Your task to perform on an android device: open app "Nova Launcher" (install if not already installed) and go to login screen Image 0: 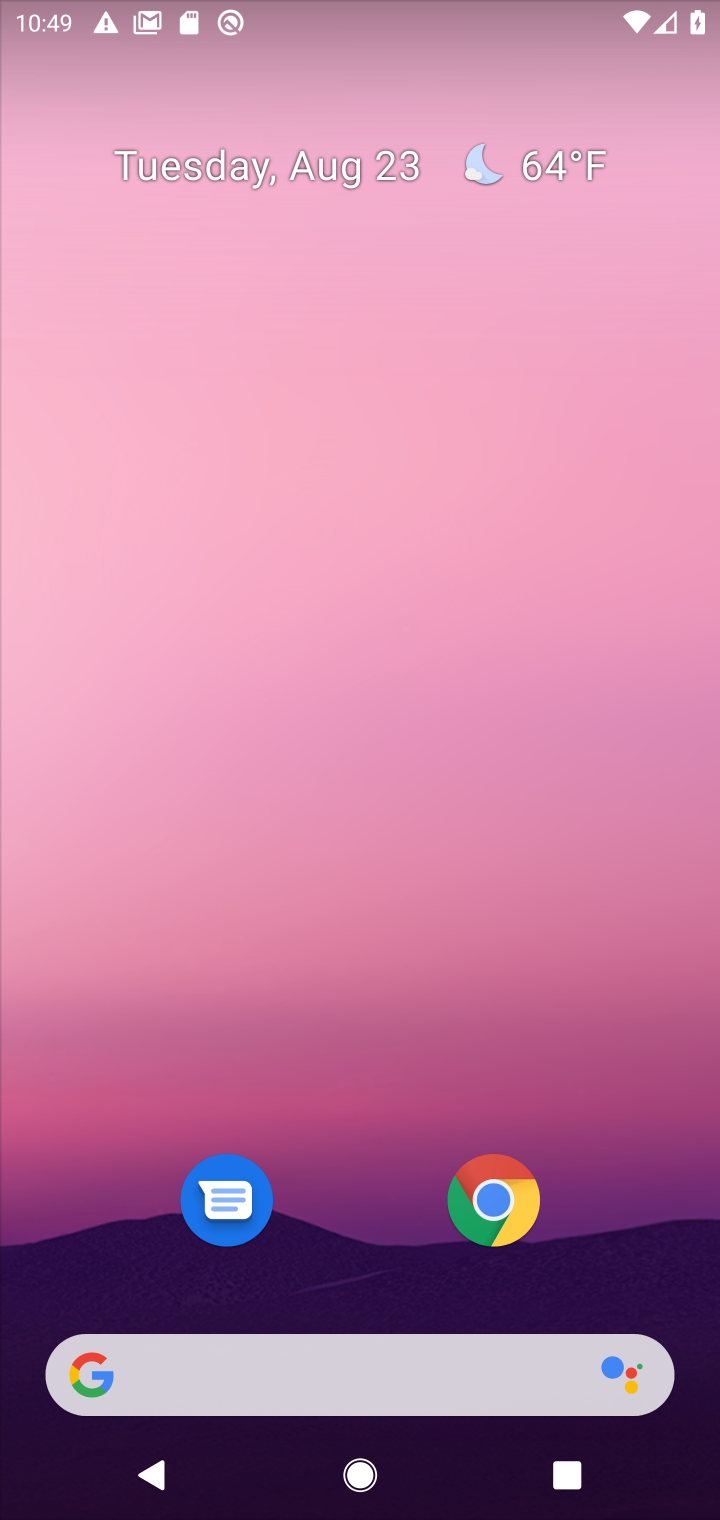
Step 0: drag from (380, 1286) to (154, 269)
Your task to perform on an android device: open app "Nova Launcher" (install if not already installed) and go to login screen Image 1: 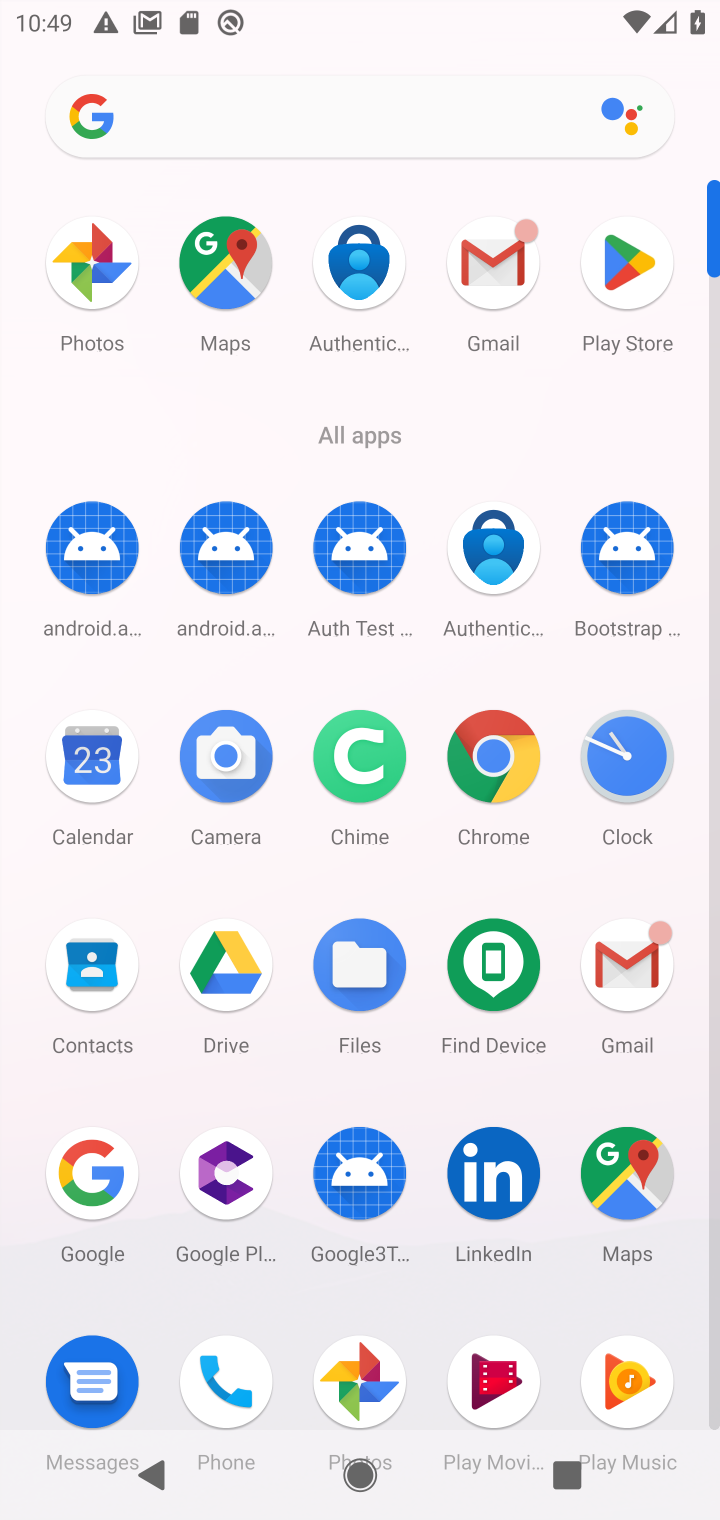
Step 1: click (615, 278)
Your task to perform on an android device: open app "Nova Launcher" (install if not already installed) and go to login screen Image 2: 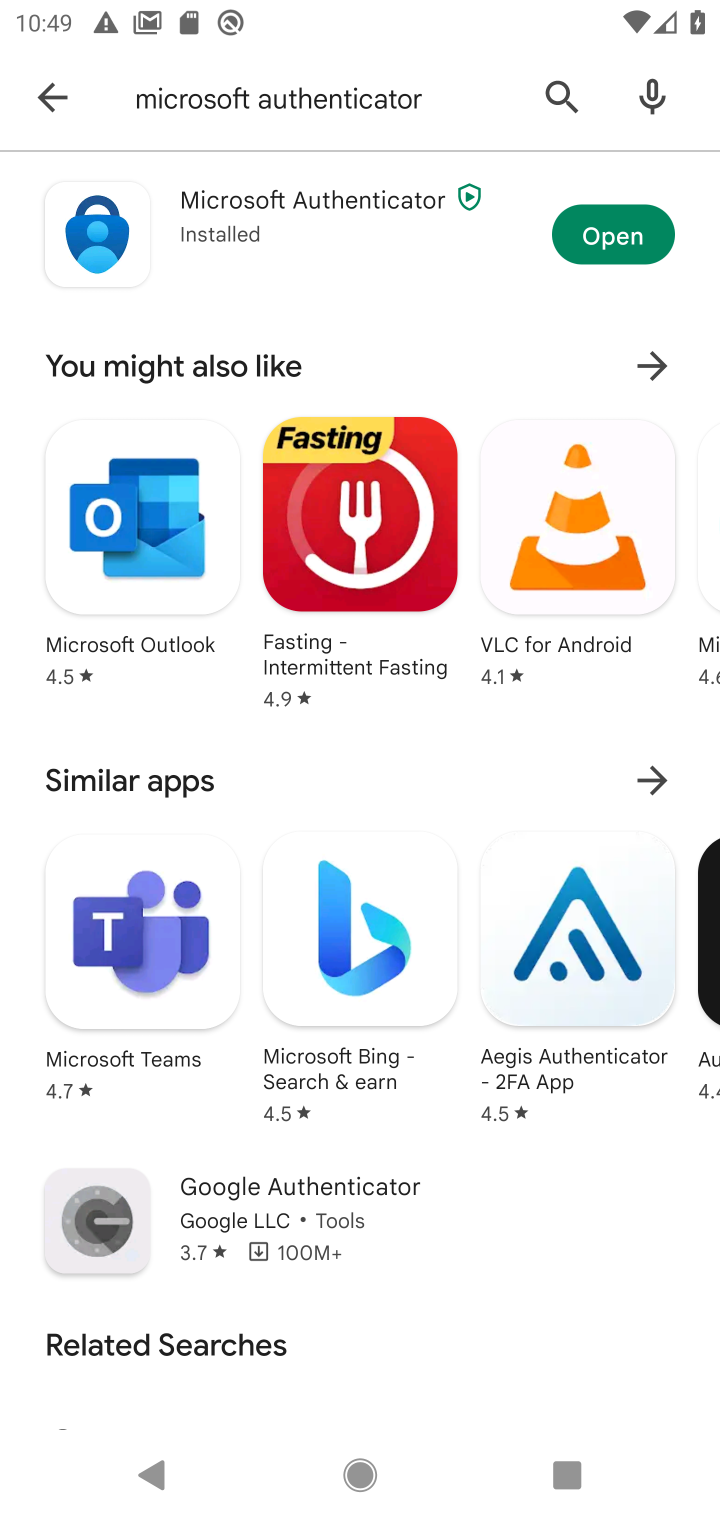
Step 2: click (550, 97)
Your task to perform on an android device: open app "Nova Launcher" (install if not already installed) and go to login screen Image 3: 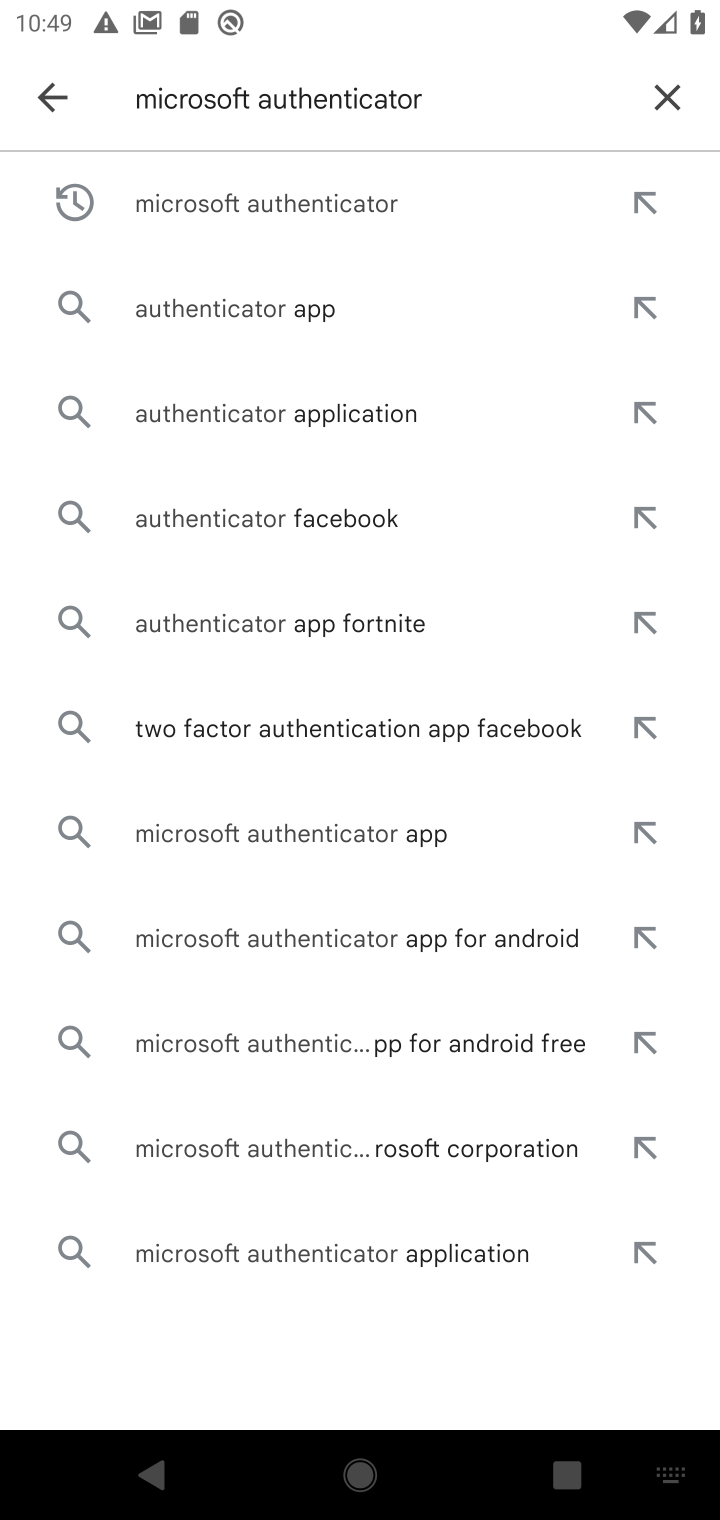
Step 3: click (681, 103)
Your task to perform on an android device: open app "Nova Launcher" (install if not already installed) and go to login screen Image 4: 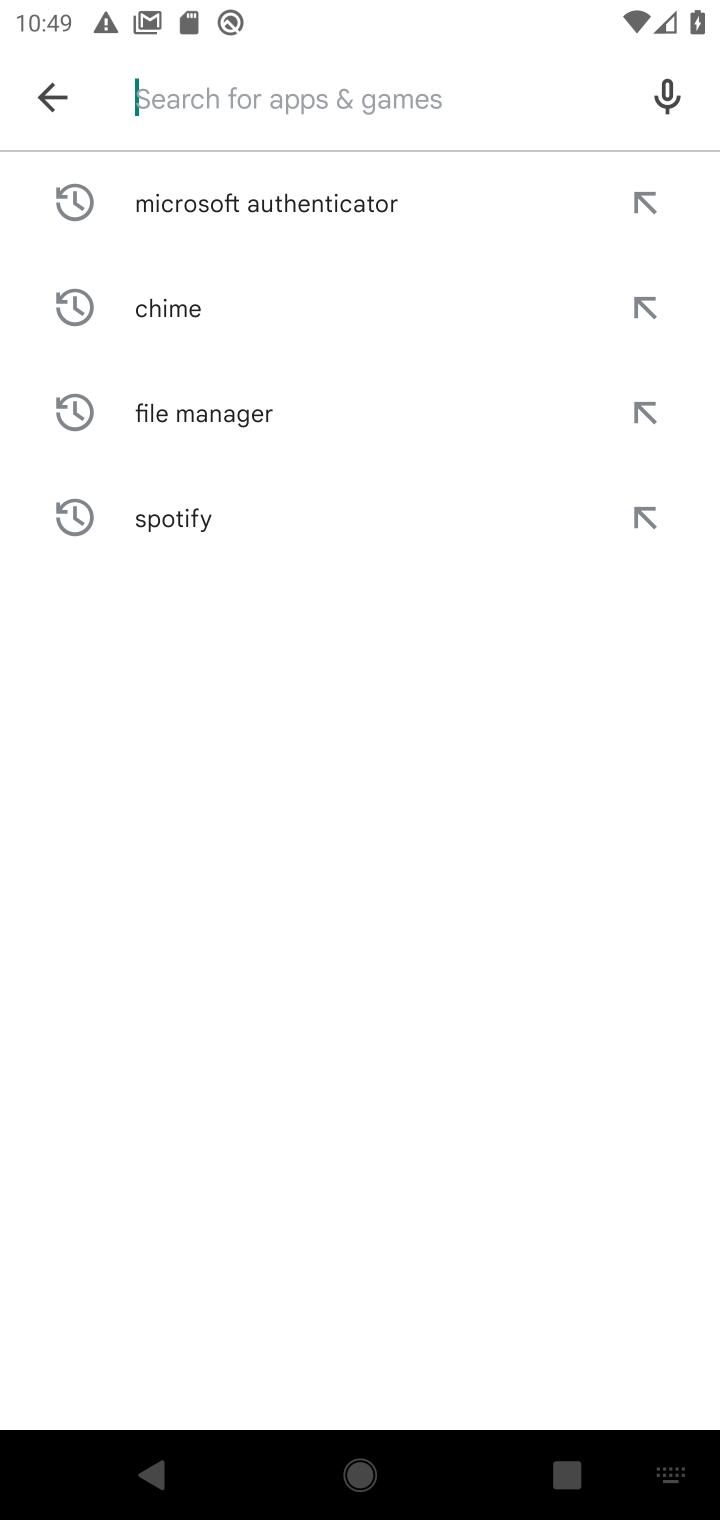
Step 4: click (55, 1277)
Your task to perform on an android device: open app "Nova Launcher" (install if not already installed) and go to login screen Image 5: 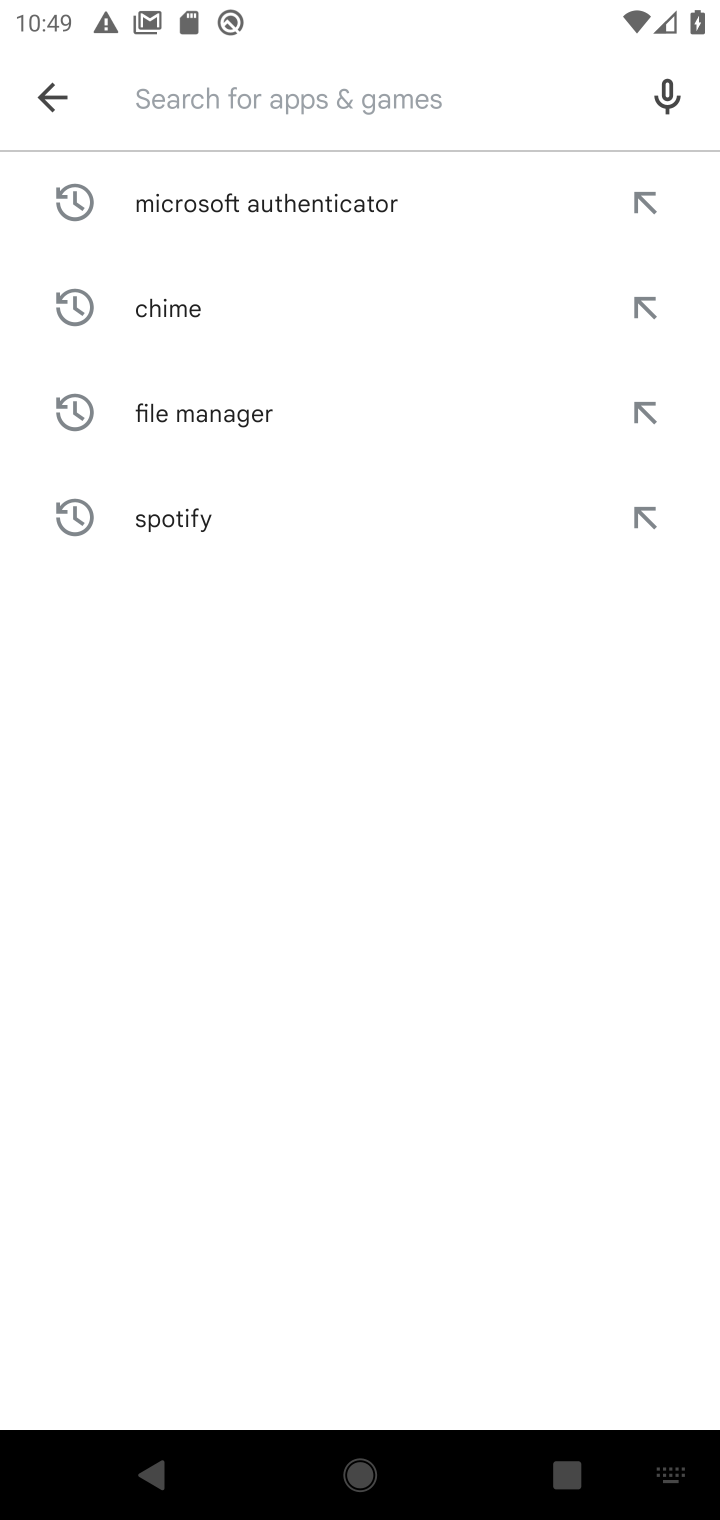
Step 5: type "Nova Launcher"
Your task to perform on an android device: open app "Nova Launcher" (install if not already installed) and go to login screen Image 6: 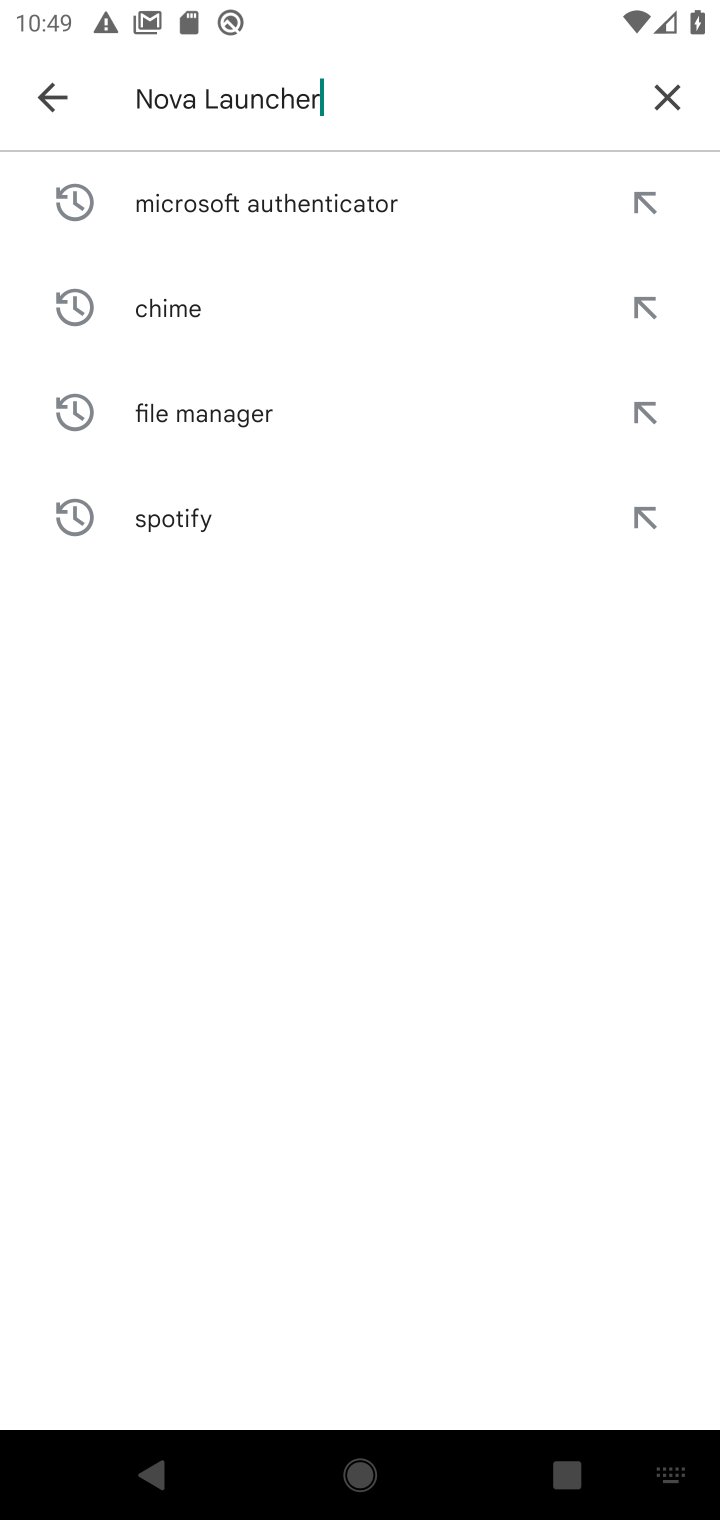
Step 6: click (687, 526)
Your task to perform on an android device: open app "Nova Launcher" (install if not already installed) and go to login screen Image 7: 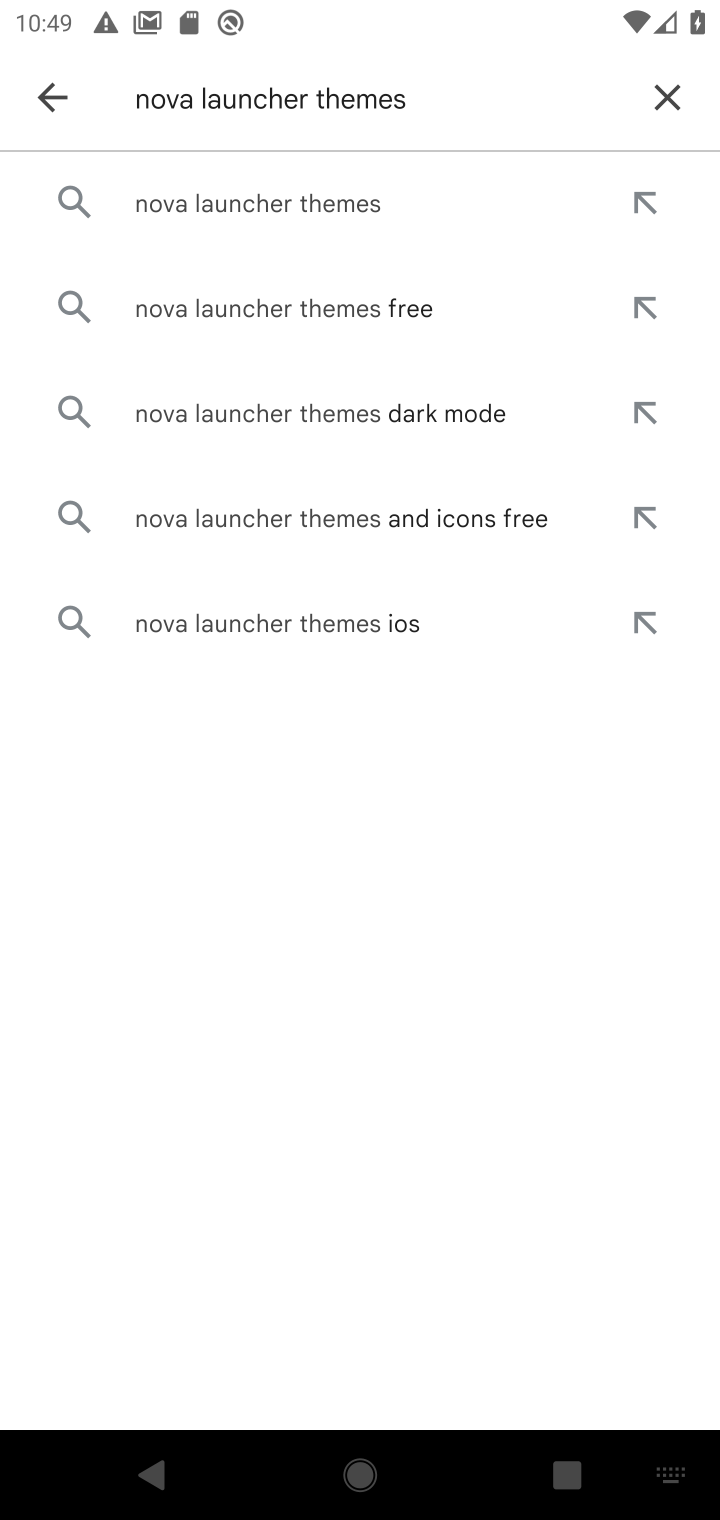
Step 7: click (275, 189)
Your task to perform on an android device: open app "Nova Launcher" (install if not already installed) and go to login screen Image 8: 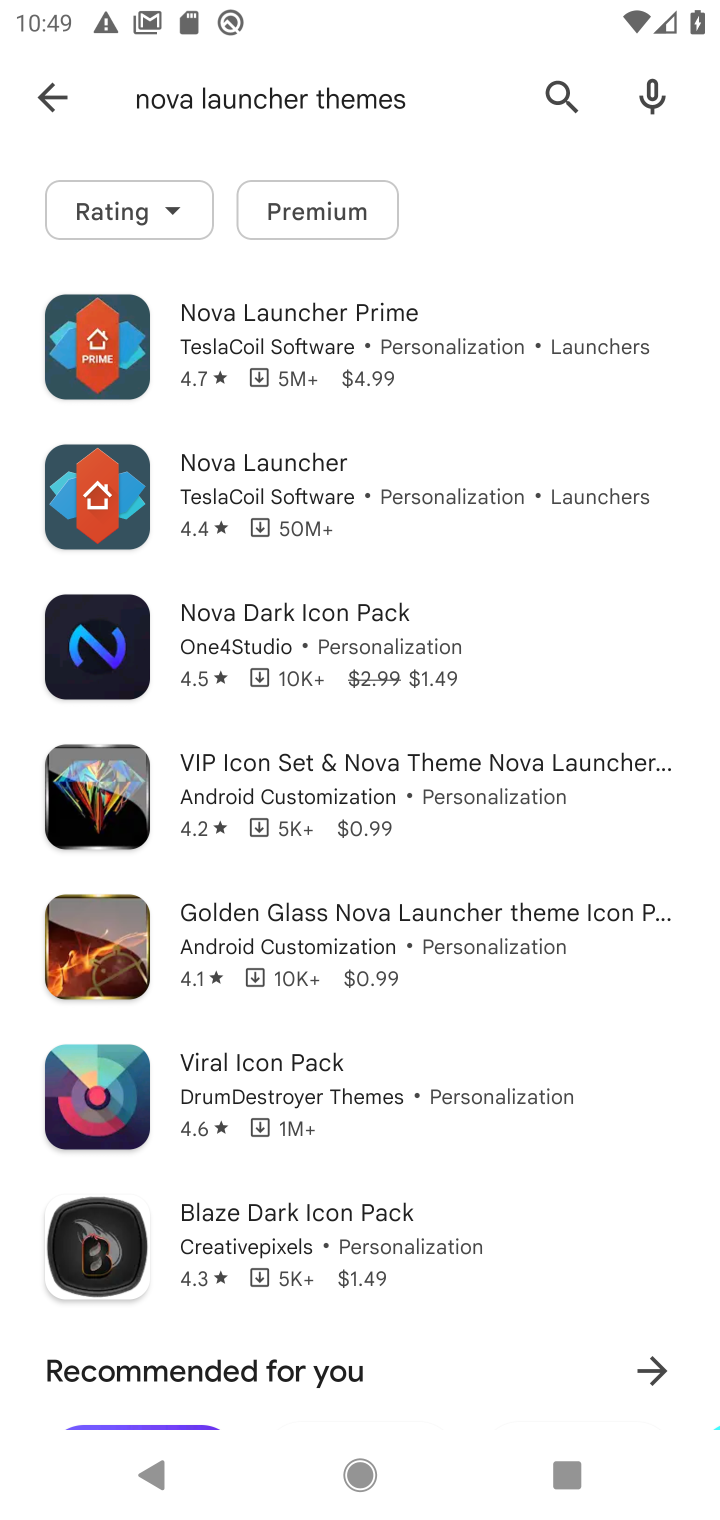
Step 8: click (292, 514)
Your task to perform on an android device: open app "Nova Launcher" (install if not already installed) and go to login screen Image 9: 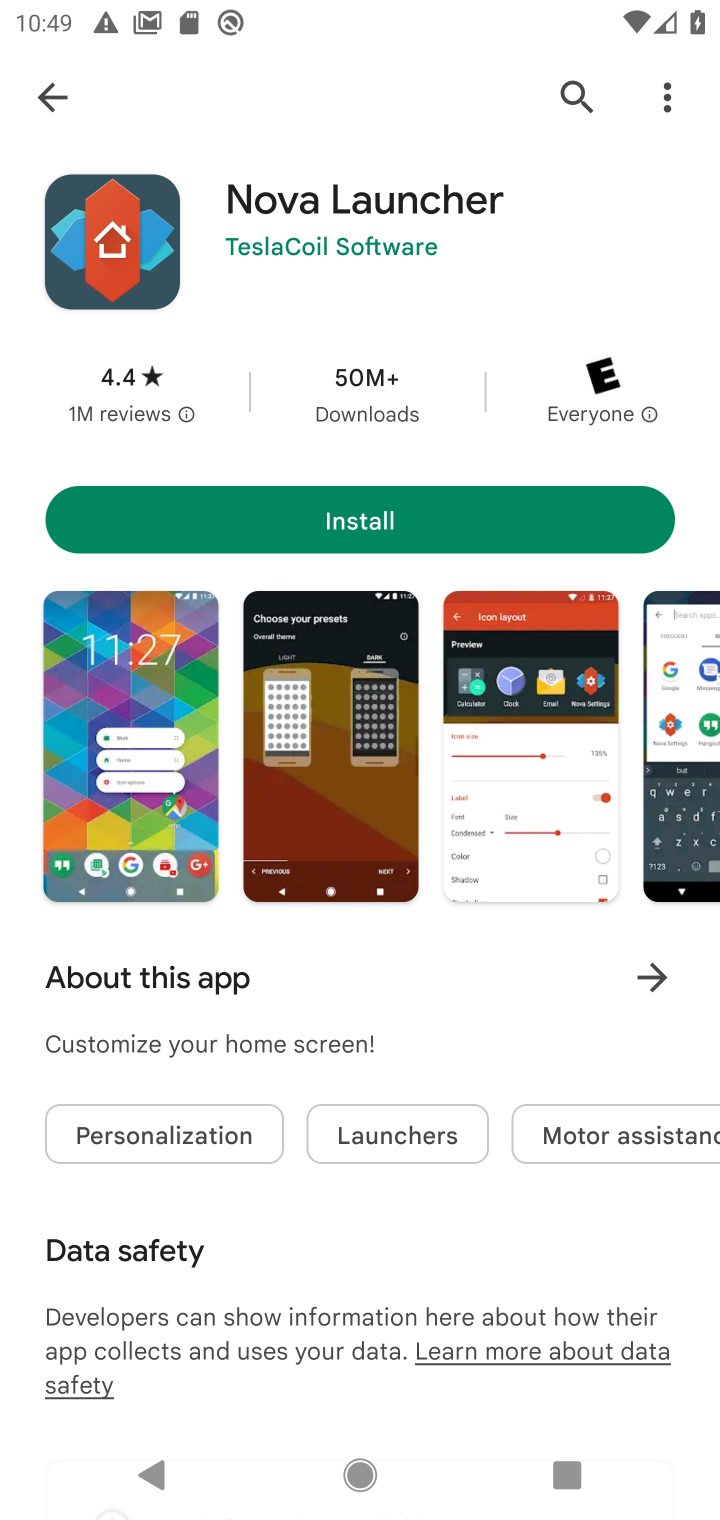
Step 9: click (385, 499)
Your task to perform on an android device: open app "Nova Launcher" (install if not already installed) and go to login screen Image 10: 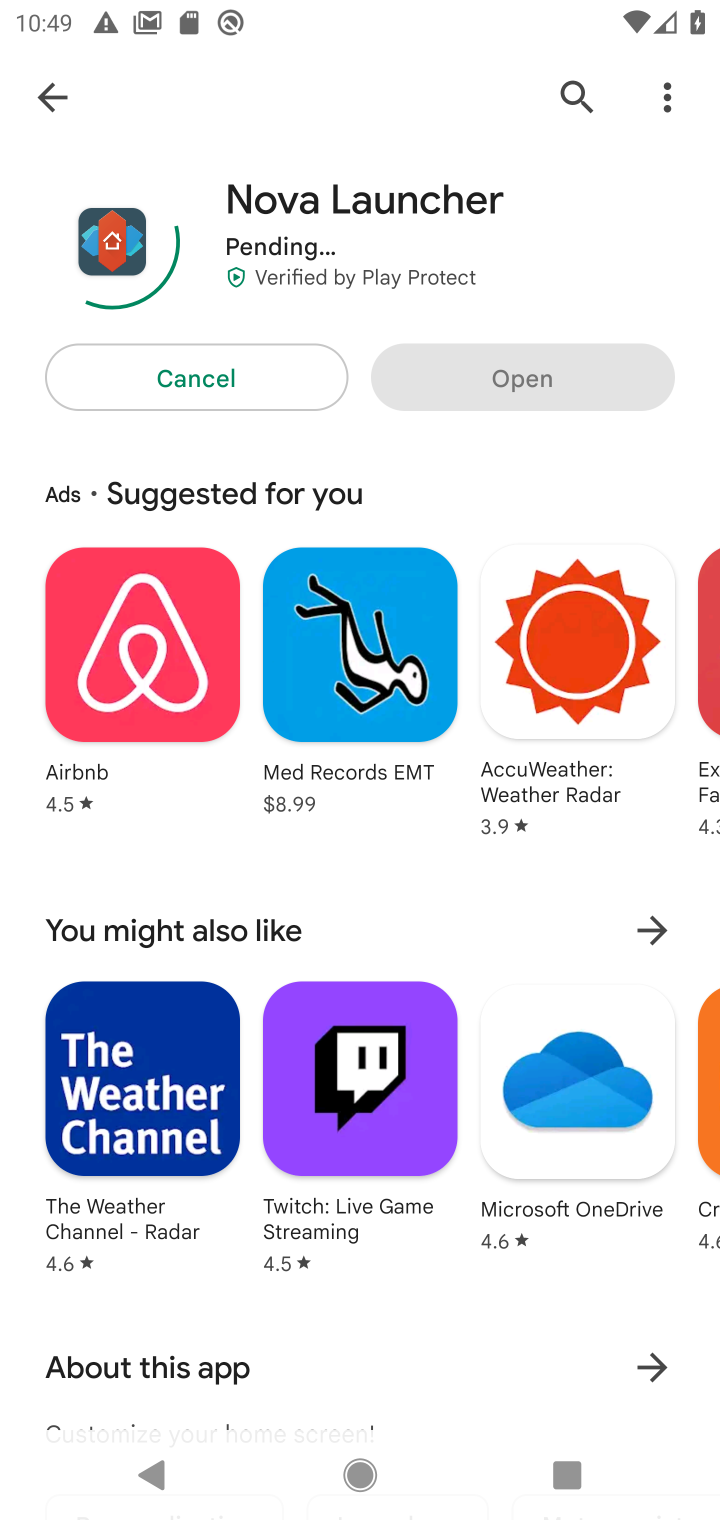
Step 10: drag from (579, 11) to (481, 1279)
Your task to perform on an android device: open app "Nova Launcher" (install if not already installed) and go to login screen Image 11: 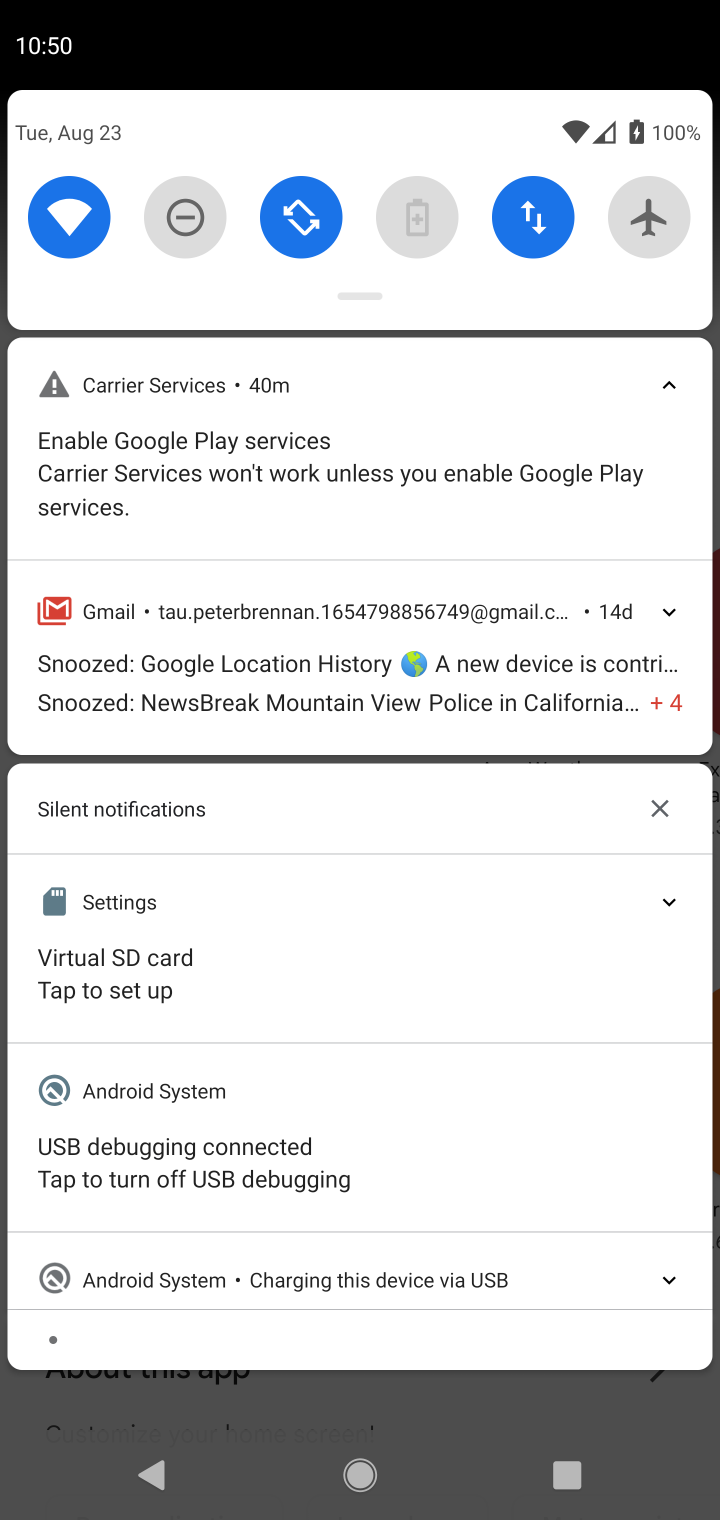
Step 11: drag from (421, 1363) to (325, 166)
Your task to perform on an android device: open app "Nova Launcher" (install if not already installed) and go to login screen Image 12: 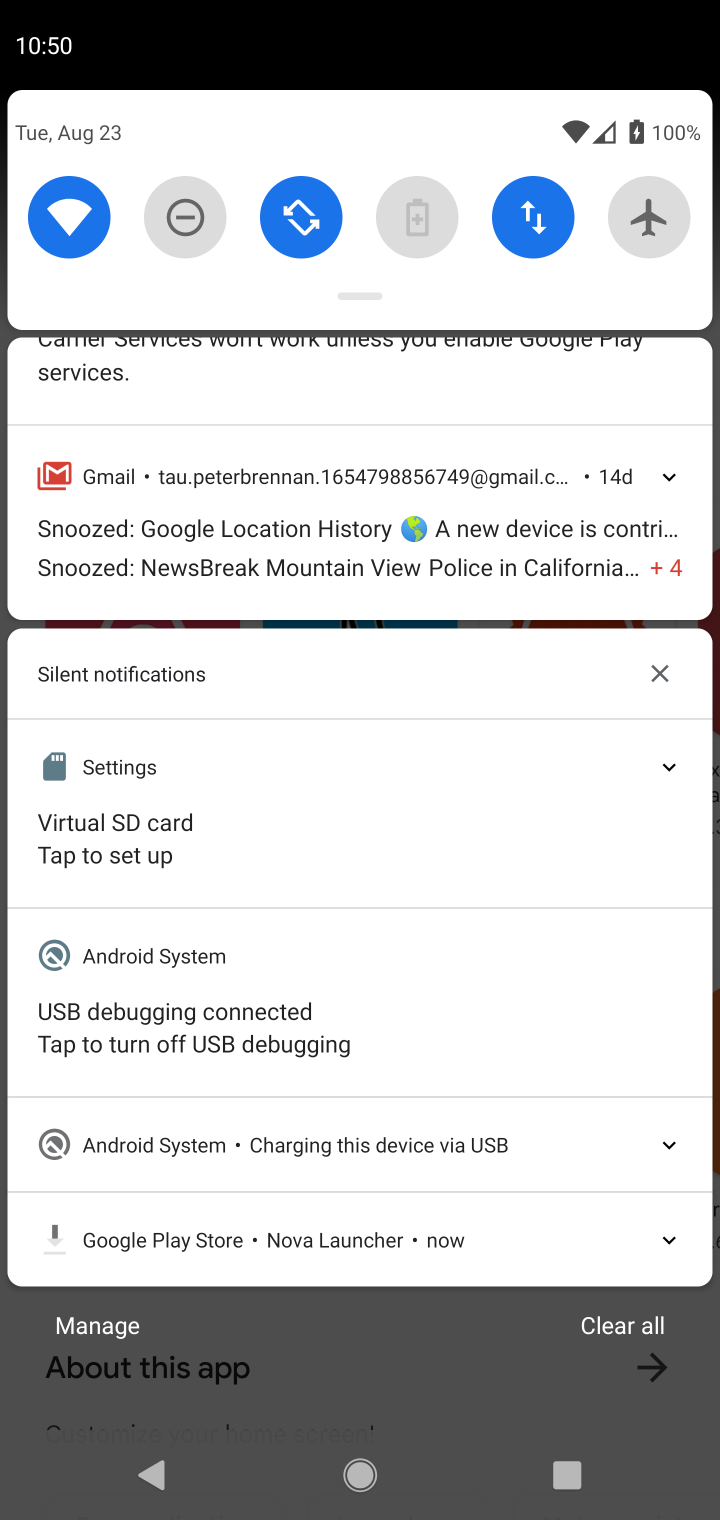
Step 12: click (581, 1324)
Your task to perform on an android device: open app "Nova Launcher" (install if not already installed) and go to login screen Image 13: 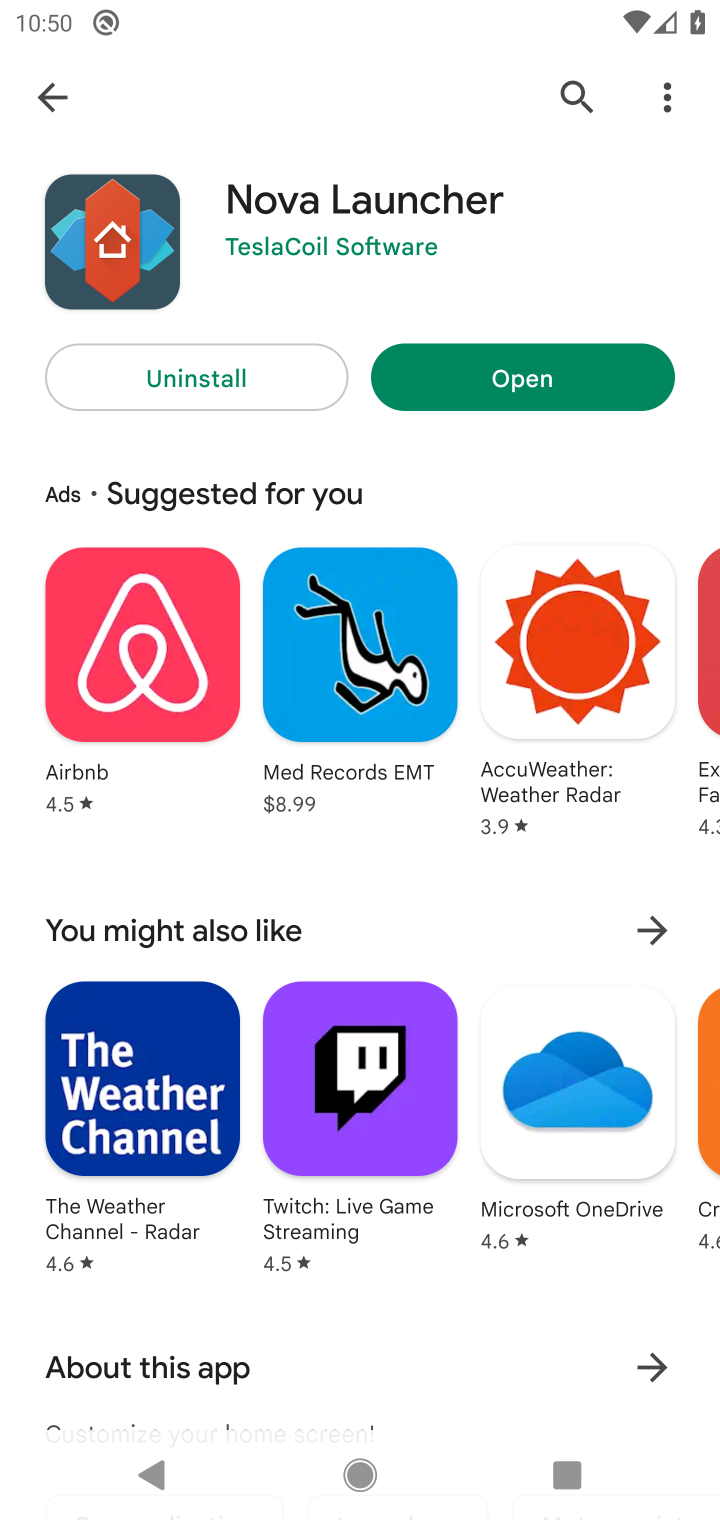
Step 13: click (451, 395)
Your task to perform on an android device: open app "Nova Launcher" (install if not already installed) and go to login screen Image 14: 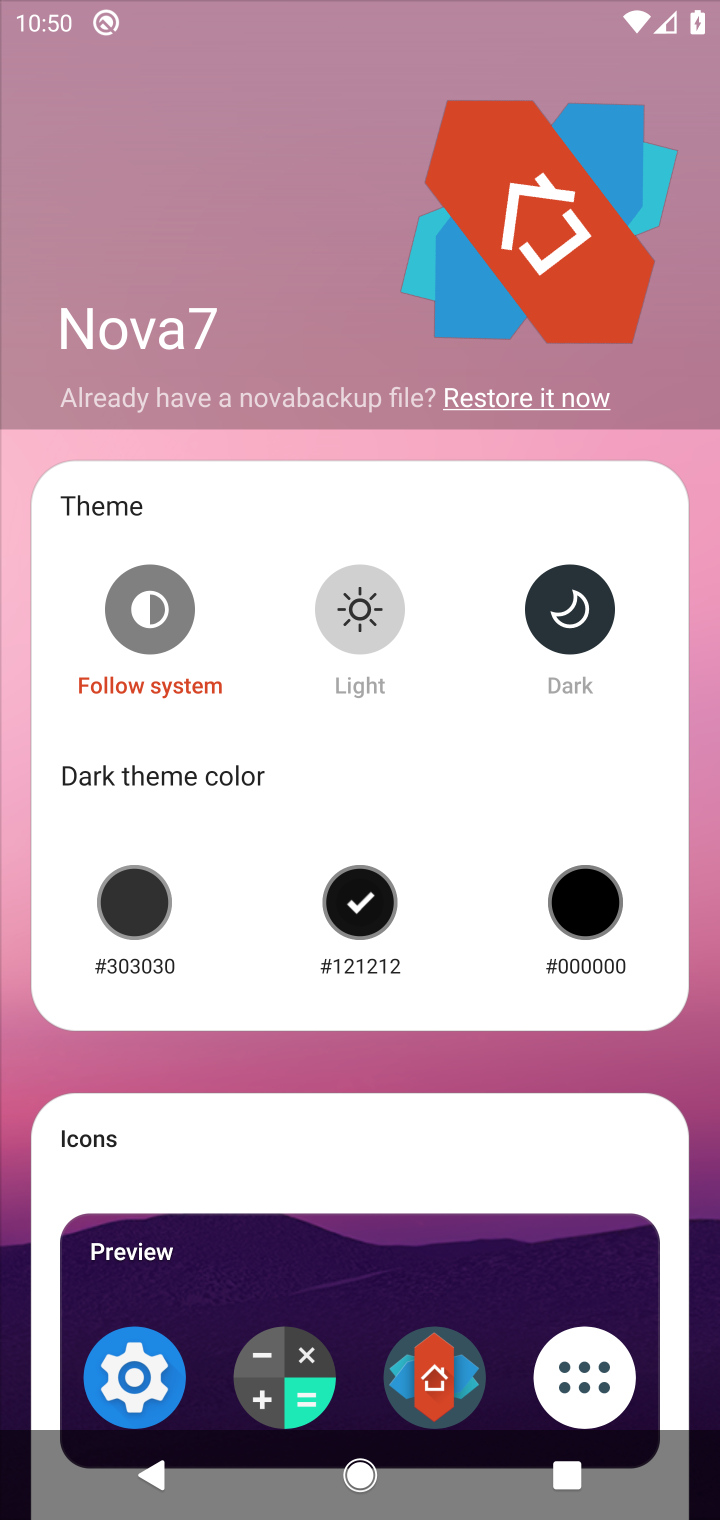
Step 14: task complete